Your task to perform on an android device: Search for Mexican restaurants on Maps Image 0: 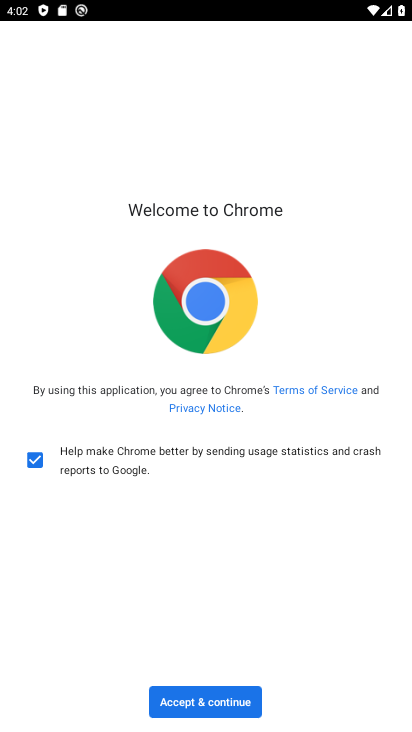
Step 0: click (189, 699)
Your task to perform on an android device: Search for Mexican restaurants on Maps Image 1: 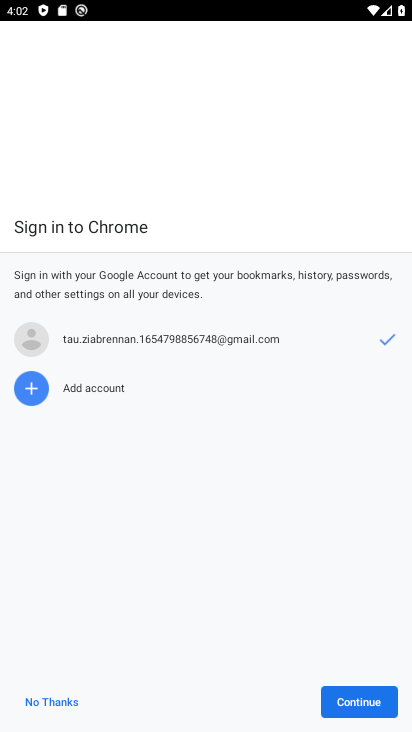
Step 1: press back button
Your task to perform on an android device: Search for Mexican restaurants on Maps Image 2: 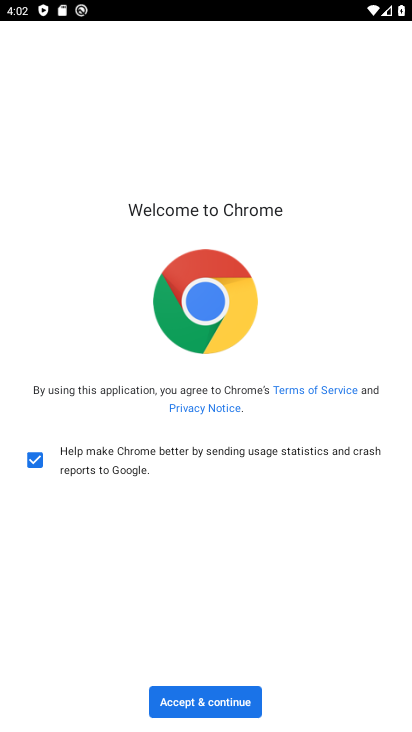
Step 2: press home button
Your task to perform on an android device: Search for Mexican restaurants on Maps Image 3: 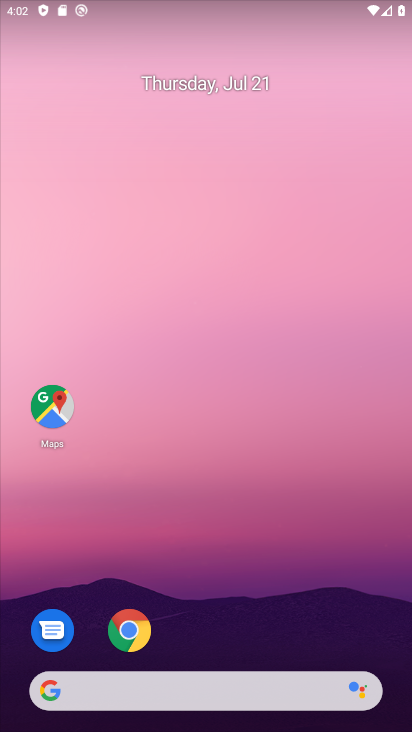
Step 3: click (57, 413)
Your task to perform on an android device: Search for Mexican restaurants on Maps Image 4: 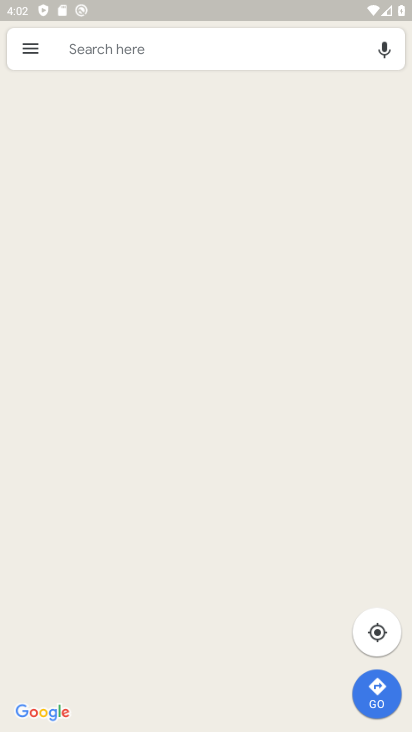
Step 4: click (160, 40)
Your task to perform on an android device: Search for Mexican restaurants on Maps Image 5: 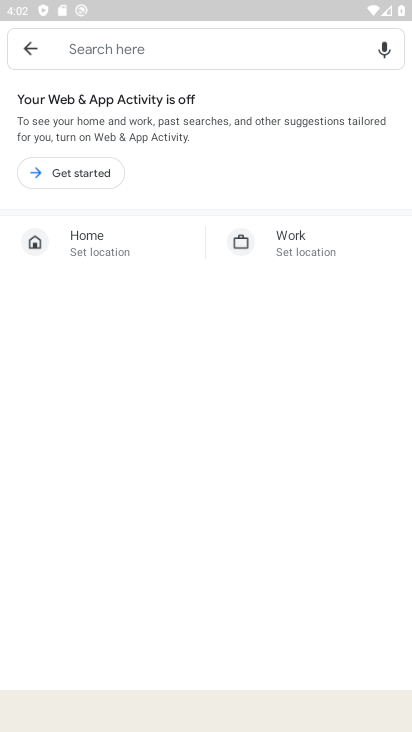
Step 5: click (104, 49)
Your task to perform on an android device: Search for Mexican restaurants on Maps Image 6: 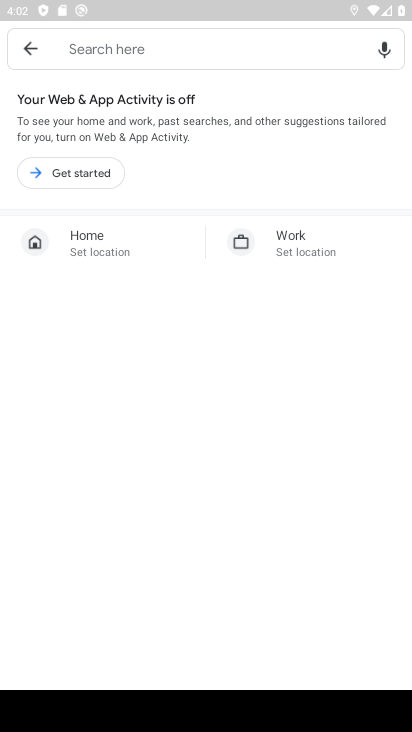
Step 6: type "mexican"
Your task to perform on an android device: Search for Mexican restaurants on Maps Image 7: 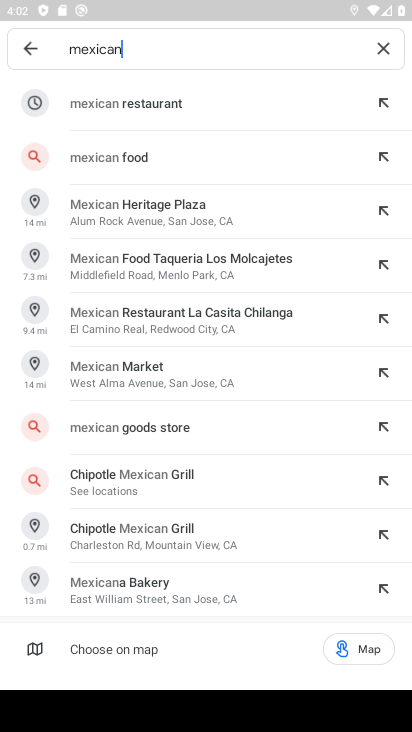
Step 7: click (115, 90)
Your task to perform on an android device: Search for Mexican restaurants on Maps Image 8: 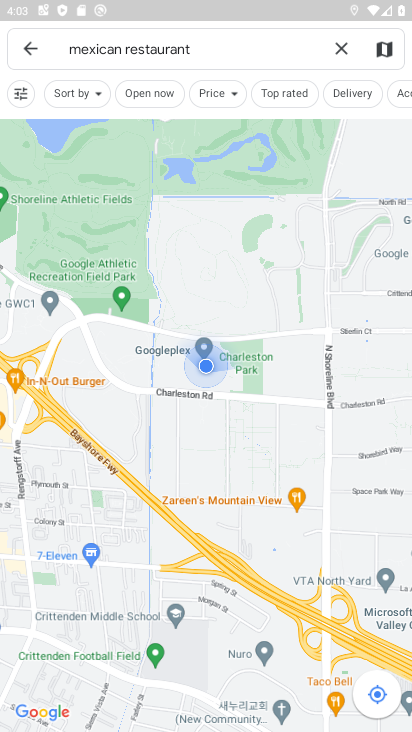
Step 8: task complete